Your task to perform on an android device: Clear the shopping cart on walmart.com. Search for amazon basics triple a on walmart.com, select the first entry, add it to the cart, then select checkout. Image 0: 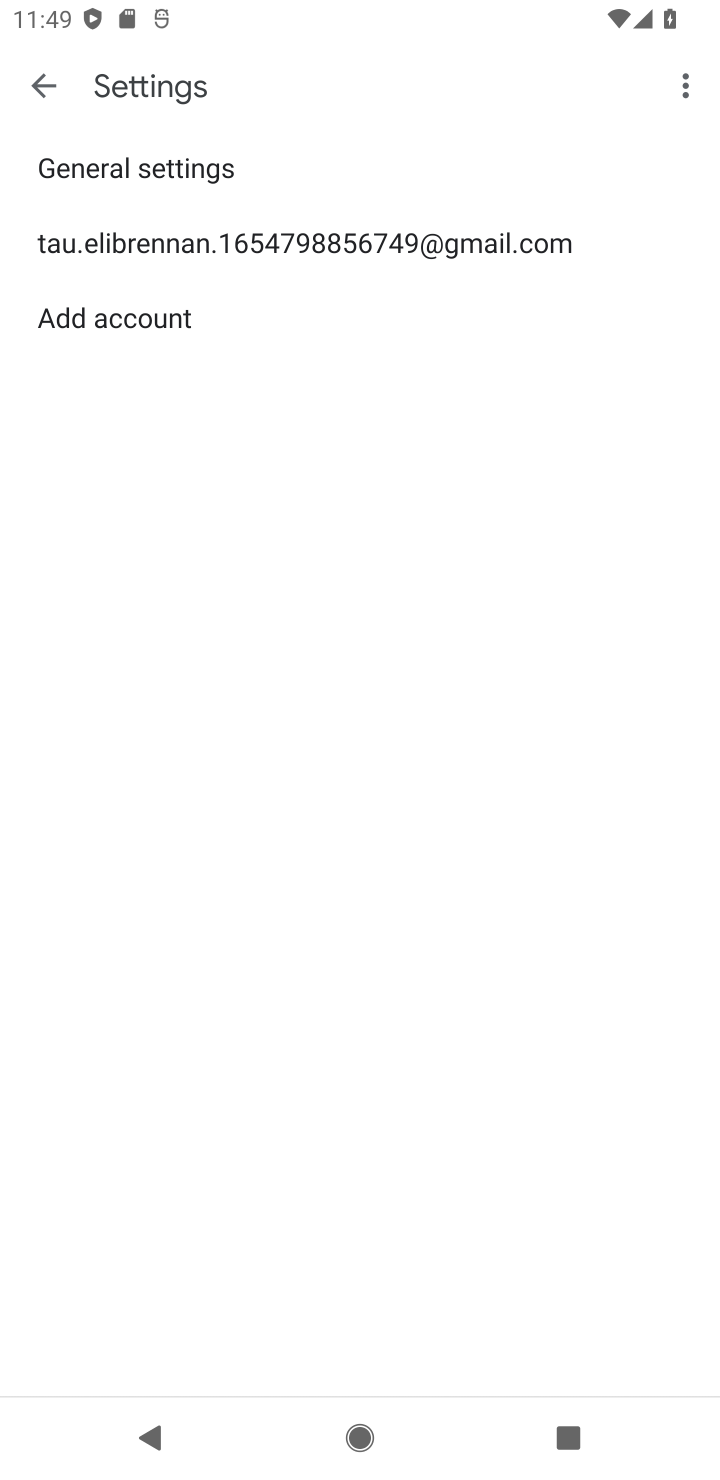
Step 0: press home button
Your task to perform on an android device: Clear the shopping cart on walmart.com. Search for amazon basics triple a on walmart.com, select the first entry, add it to the cart, then select checkout. Image 1: 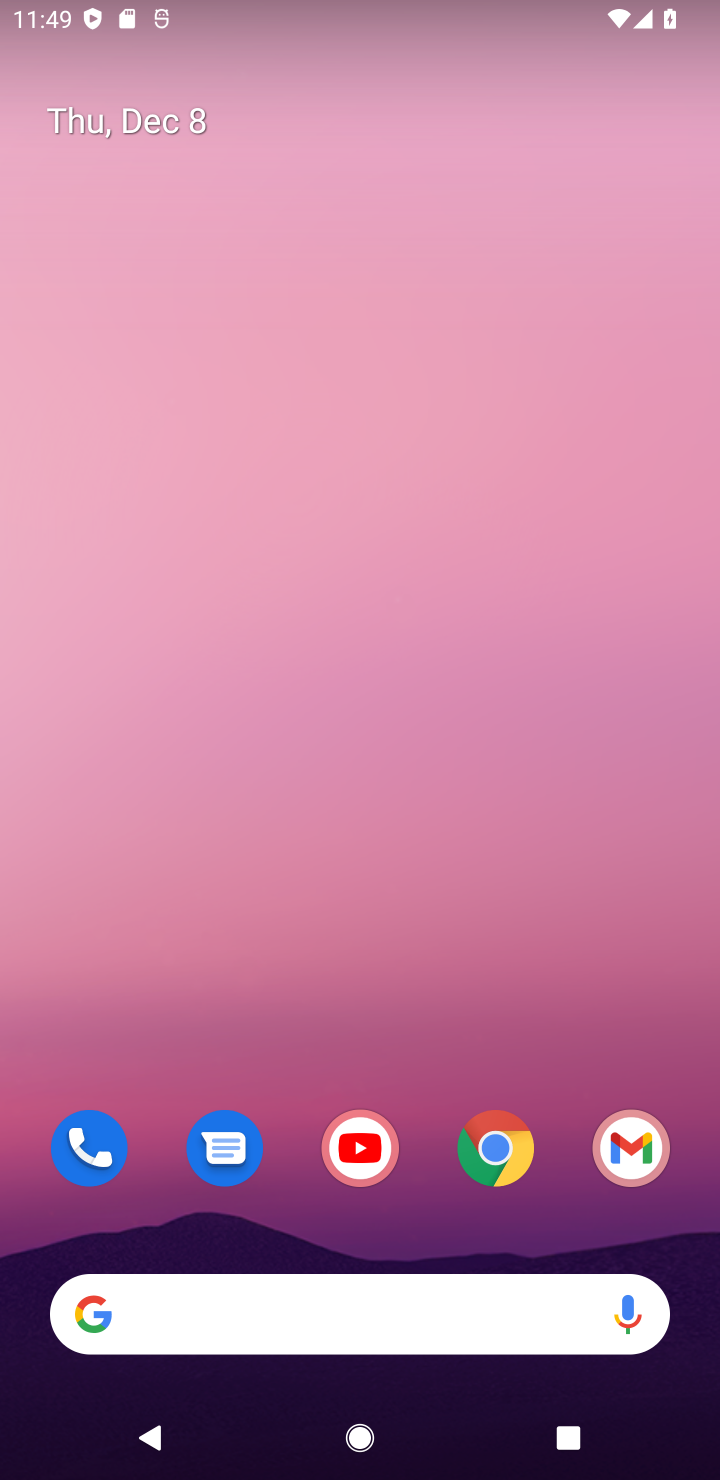
Step 1: click (366, 1295)
Your task to perform on an android device: Clear the shopping cart on walmart.com. Search for amazon basics triple a on walmart.com, select the first entry, add it to the cart, then select checkout. Image 2: 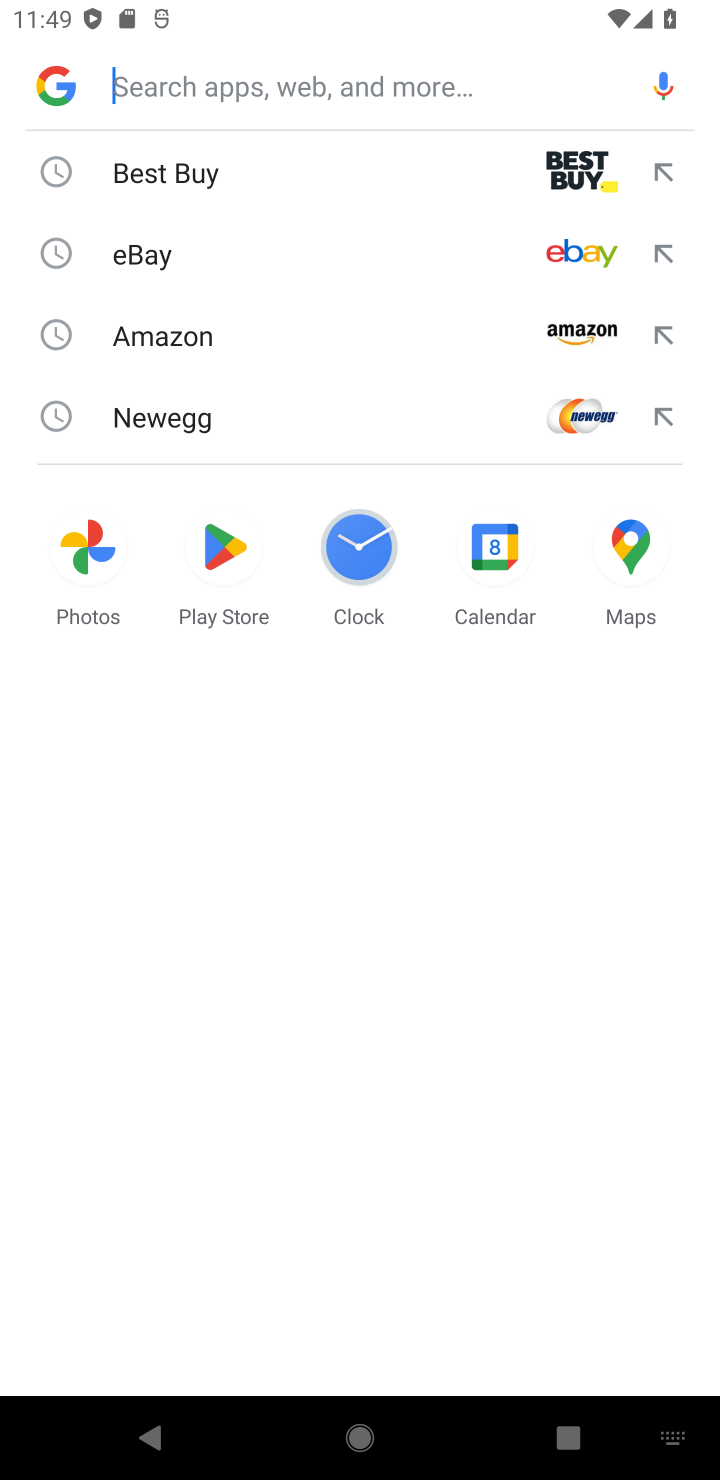
Step 2: type "walmart"
Your task to perform on an android device: Clear the shopping cart on walmart.com. Search for amazon basics triple a on walmart.com, select the first entry, add it to the cart, then select checkout. Image 3: 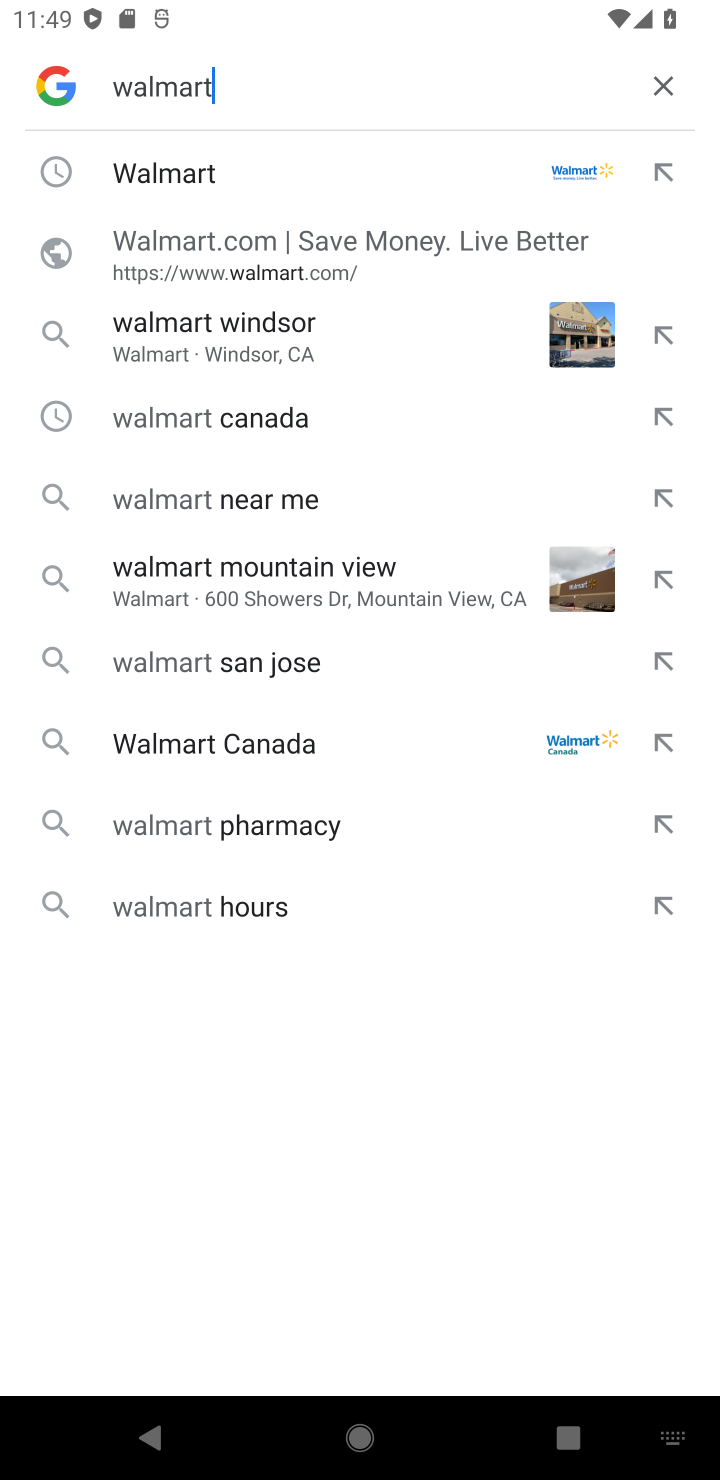
Step 3: click (193, 183)
Your task to perform on an android device: Clear the shopping cart on walmart.com. Search for amazon basics triple a on walmart.com, select the first entry, add it to the cart, then select checkout. Image 4: 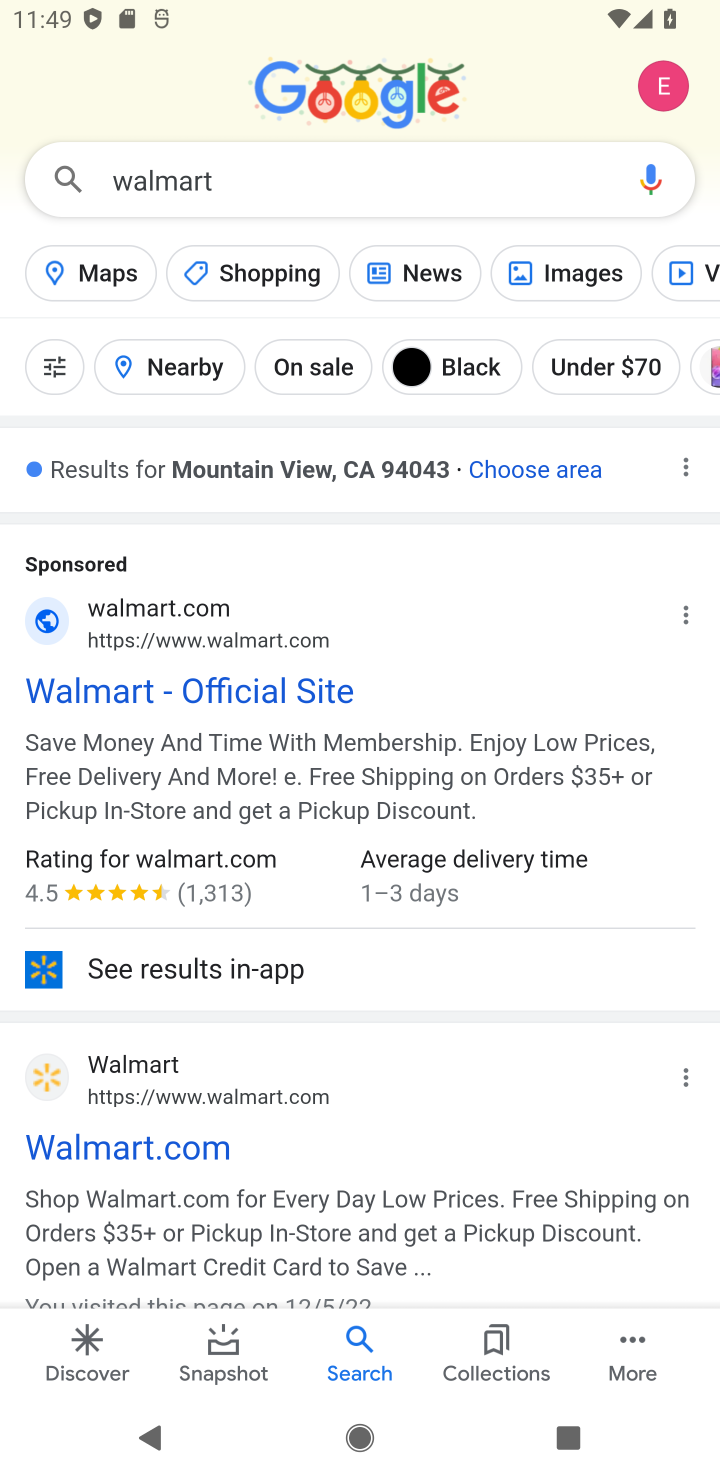
Step 4: click (73, 686)
Your task to perform on an android device: Clear the shopping cart on walmart.com. Search for amazon basics triple a on walmart.com, select the first entry, add it to the cart, then select checkout. Image 5: 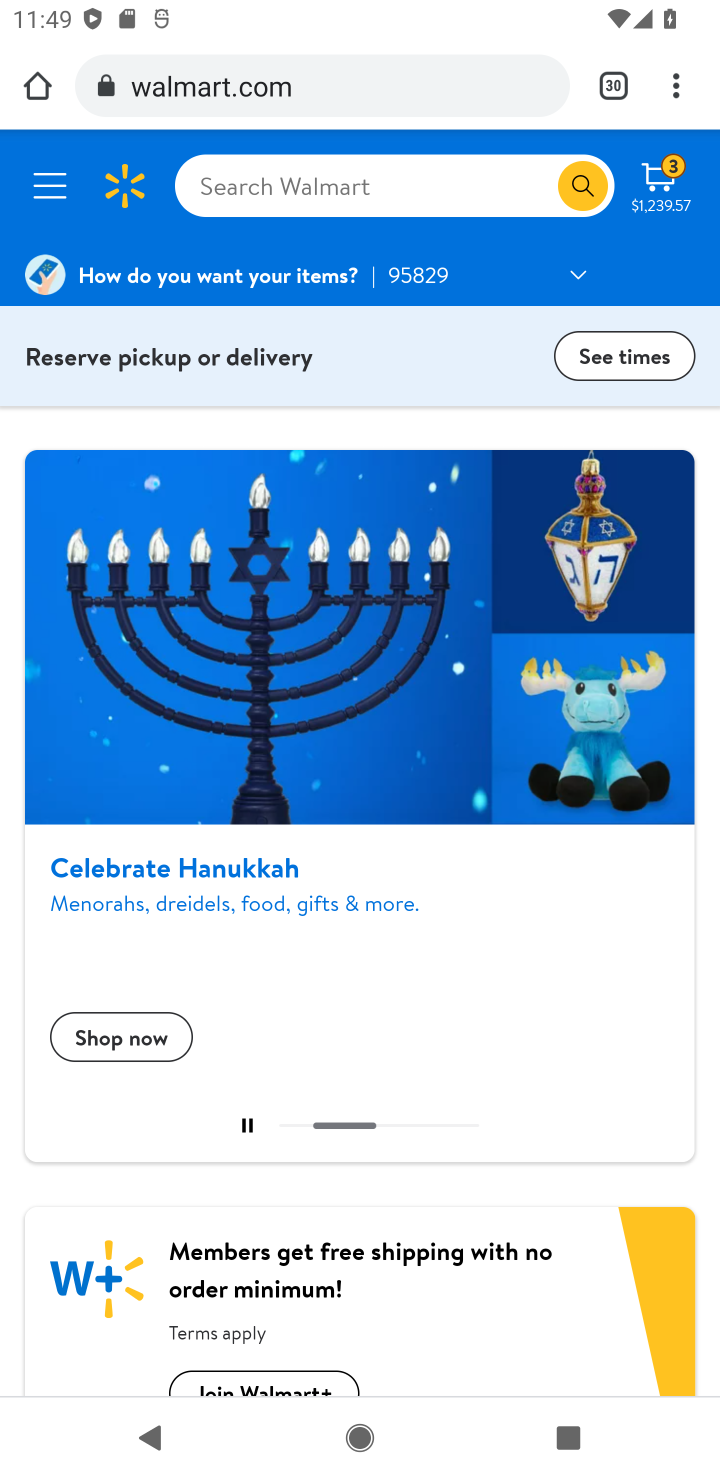
Step 5: click (660, 175)
Your task to perform on an android device: Clear the shopping cart on walmart.com. Search for amazon basics triple a on walmart.com, select the first entry, add it to the cart, then select checkout. Image 6: 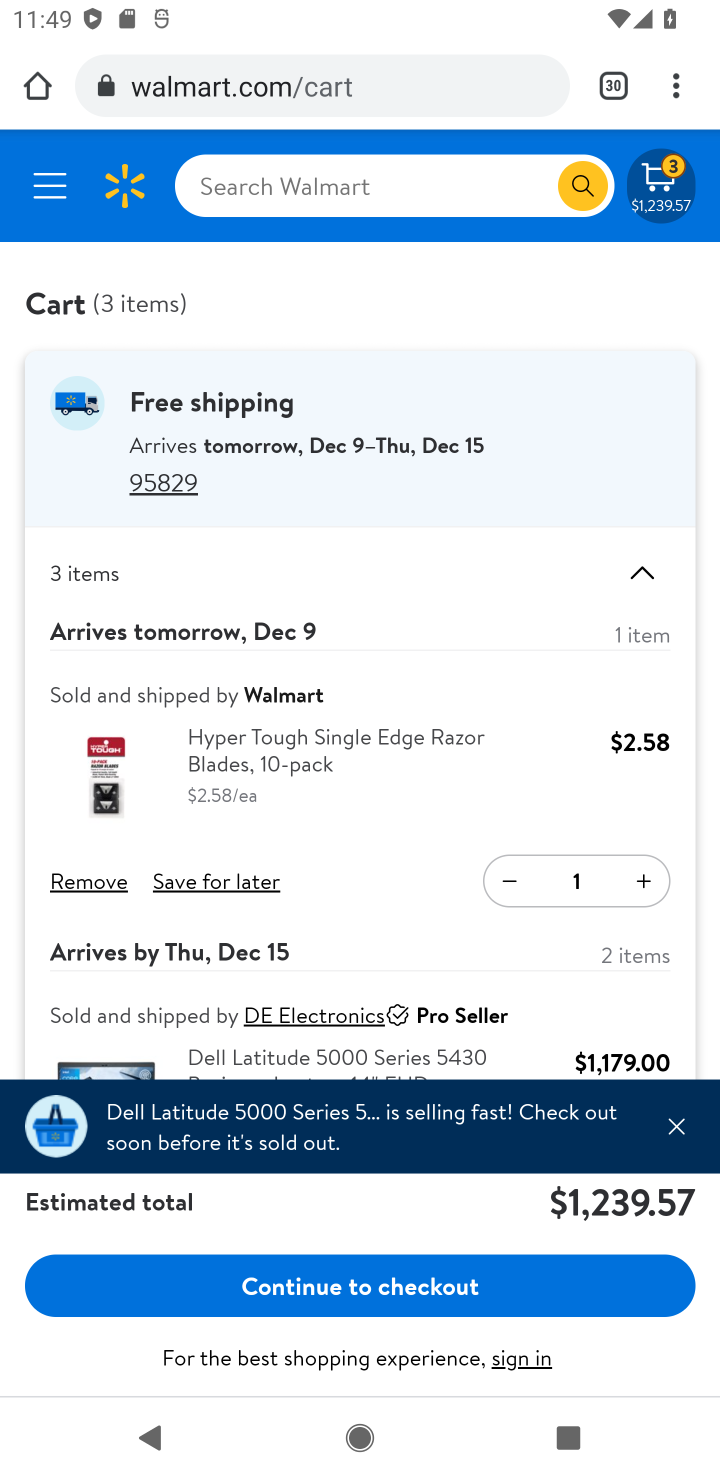
Step 6: click (86, 886)
Your task to perform on an android device: Clear the shopping cart on walmart.com. Search for amazon basics triple a on walmart.com, select the first entry, add it to the cart, then select checkout. Image 7: 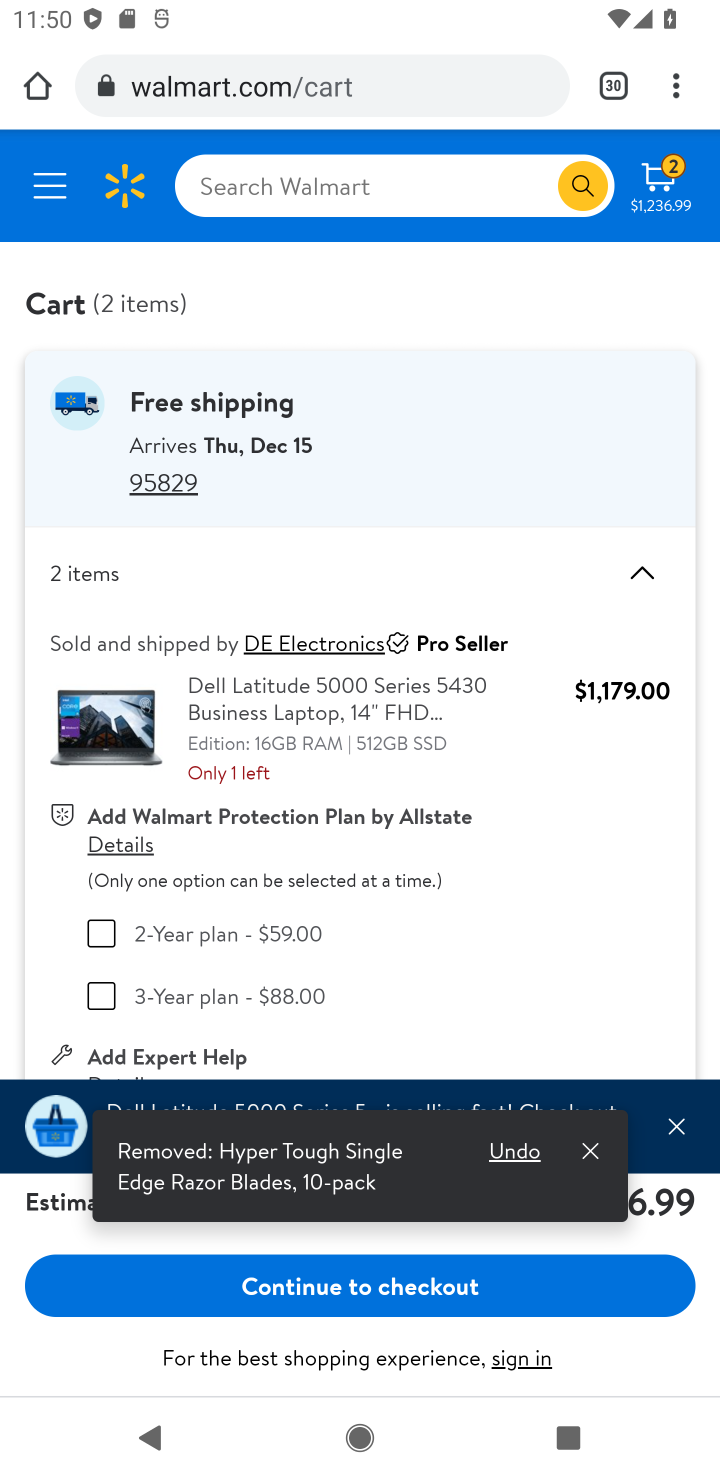
Step 7: drag from (543, 884) to (489, 567)
Your task to perform on an android device: Clear the shopping cart on walmart.com. Search for amazon basics triple a on walmart.com, select the first entry, add it to the cart, then select checkout. Image 8: 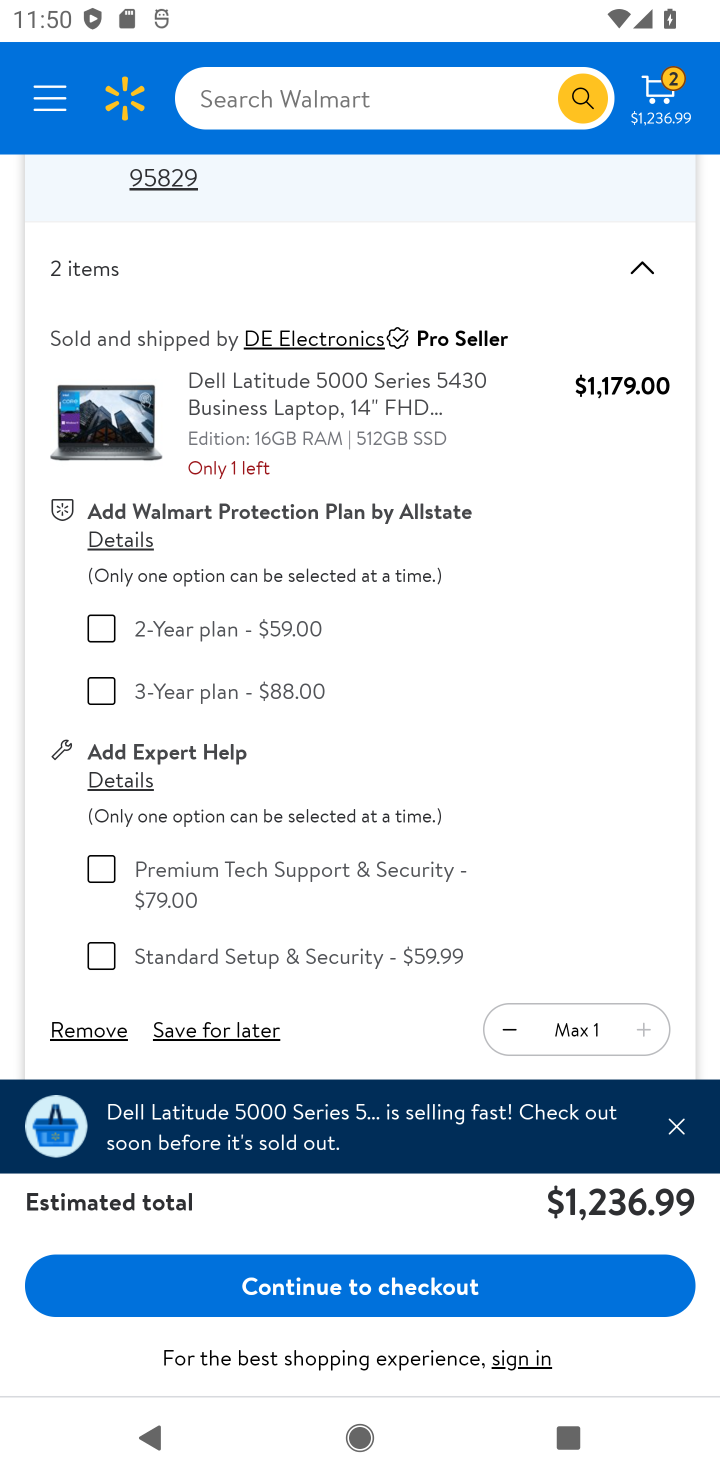
Step 8: click (81, 1028)
Your task to perform on an android device: Clear the shopping cart on walmart.com. Search for amazon basics triple a on walmart.com, select the first entry, add it to the cart, then select checkout. Image 9: 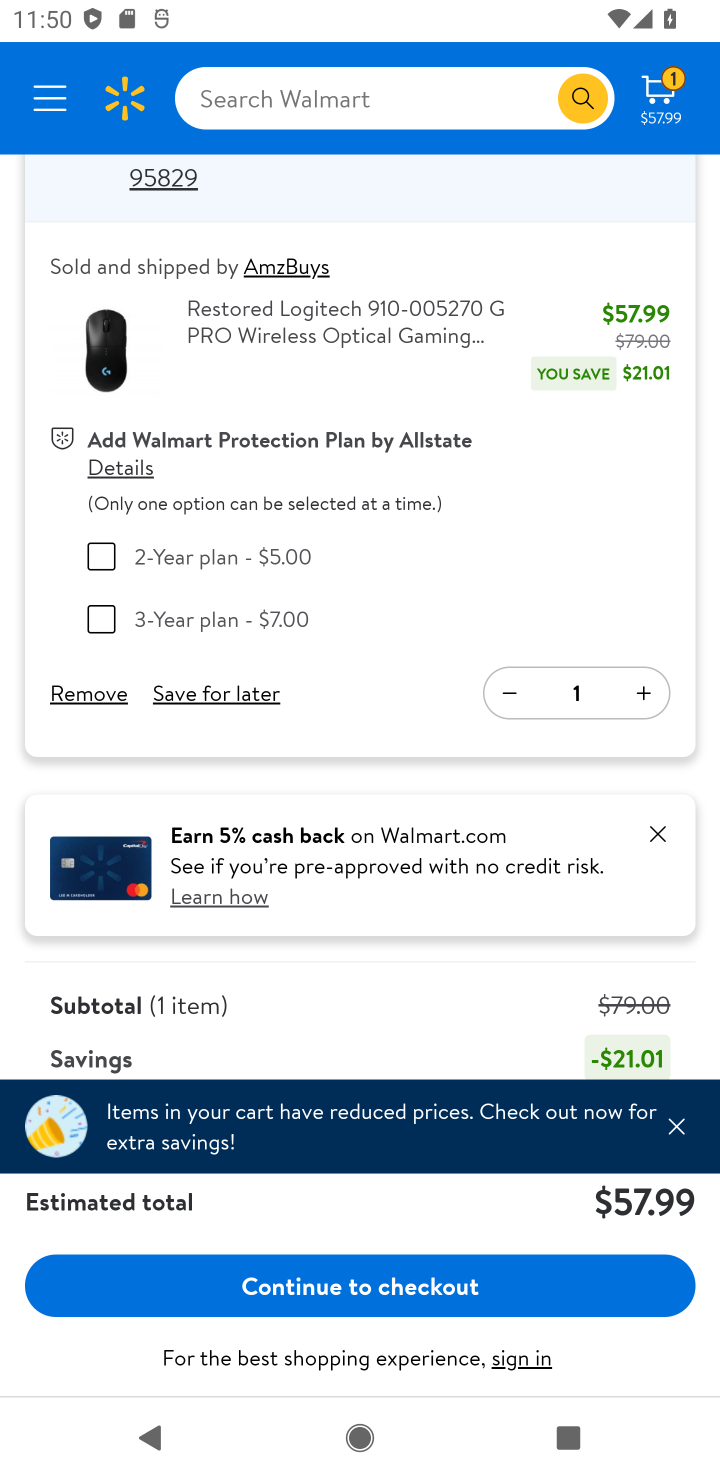
Step 9: click (87, 694)
Your task to perform on an android device: Clear the shopping cart on walmart.com. Search for amazon basics triple a on walmart.com, select the first entry, add it to the cart, then select checkout. Image 10: 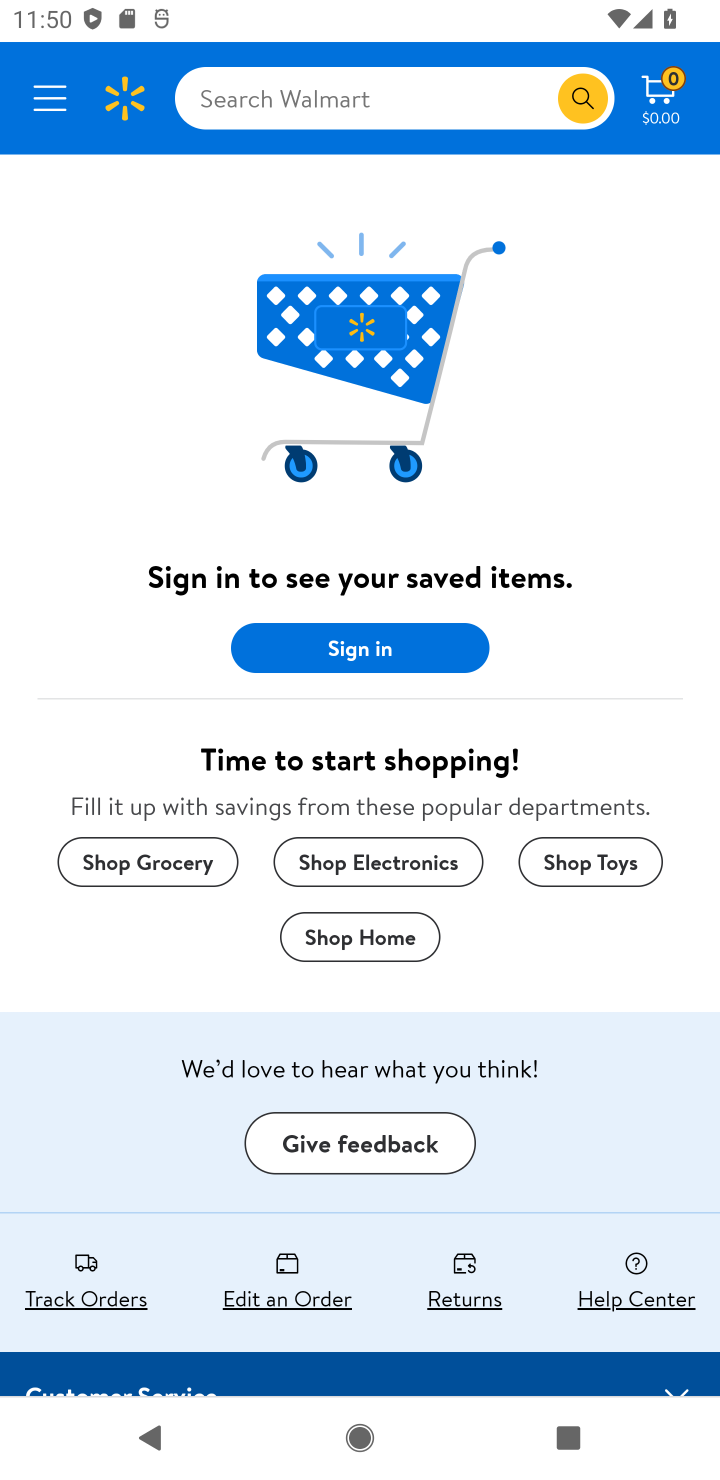
Step 10: click (328, 83)
Your task to perform on an android device: Clear the shopping cart on walmart.com. Search for amazon basics triple a on walmart.com, select the first entry, add it to the cart, then select checkout. Image 11: 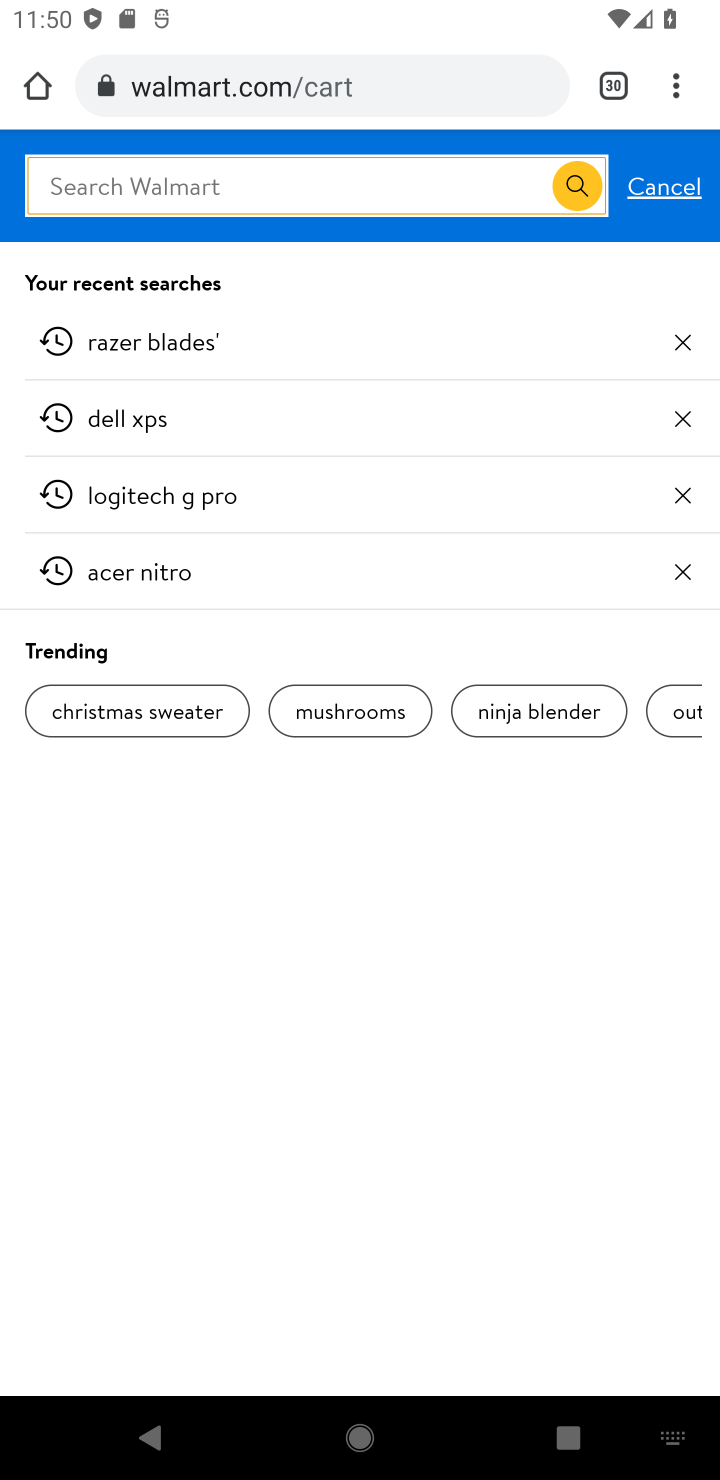
Step 11: type "amazon basics triple a"
Your task to perform on an android device: Clear the shopping cart on walmart.com. Search for amazon basics triple a on walmart.com, select the first entry, add it to the cart, then select checkout. Image 12: 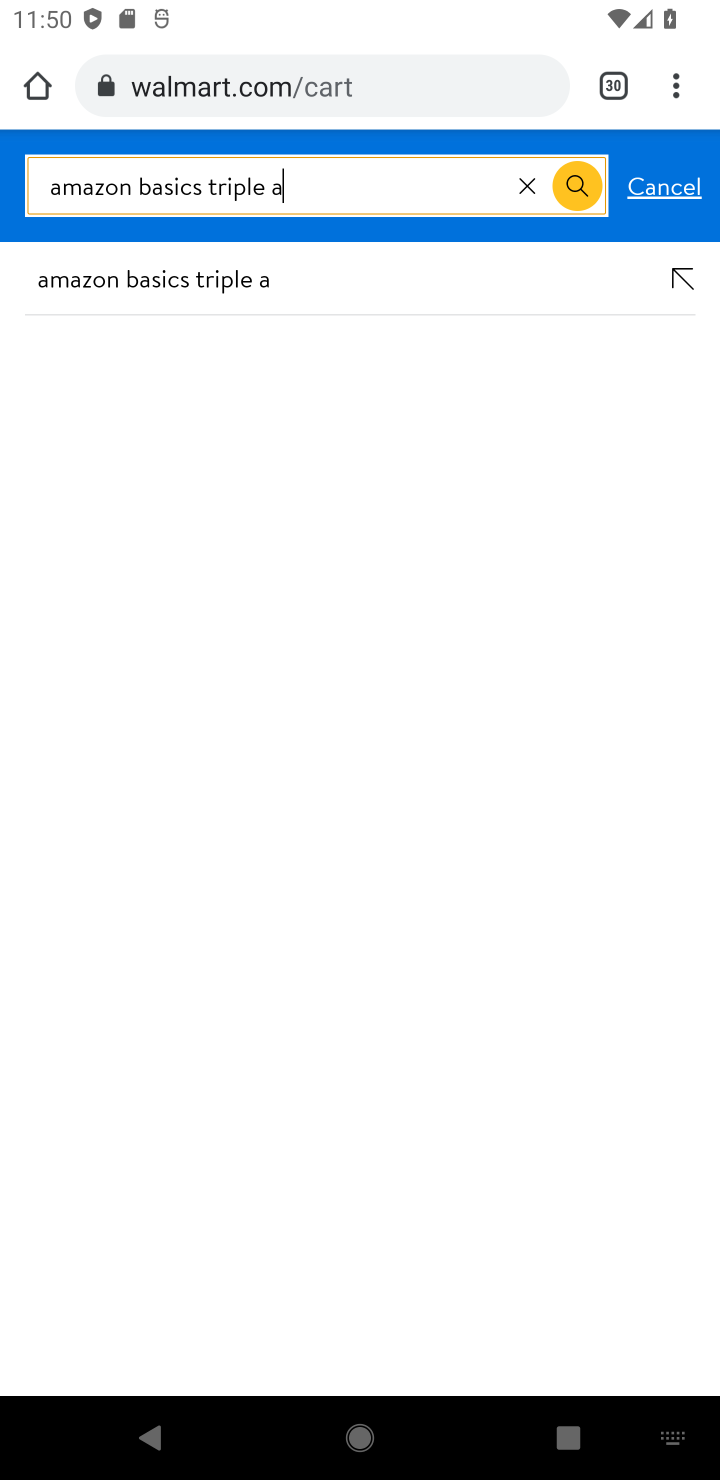
Step 12: click (251, 269)
Your task to perform on an android device: Clear the shopping cart on walmart.com. Search for amazon basics triple a on walmart.com, select the first entry, add it to the cart, then select checkout. Image 13: 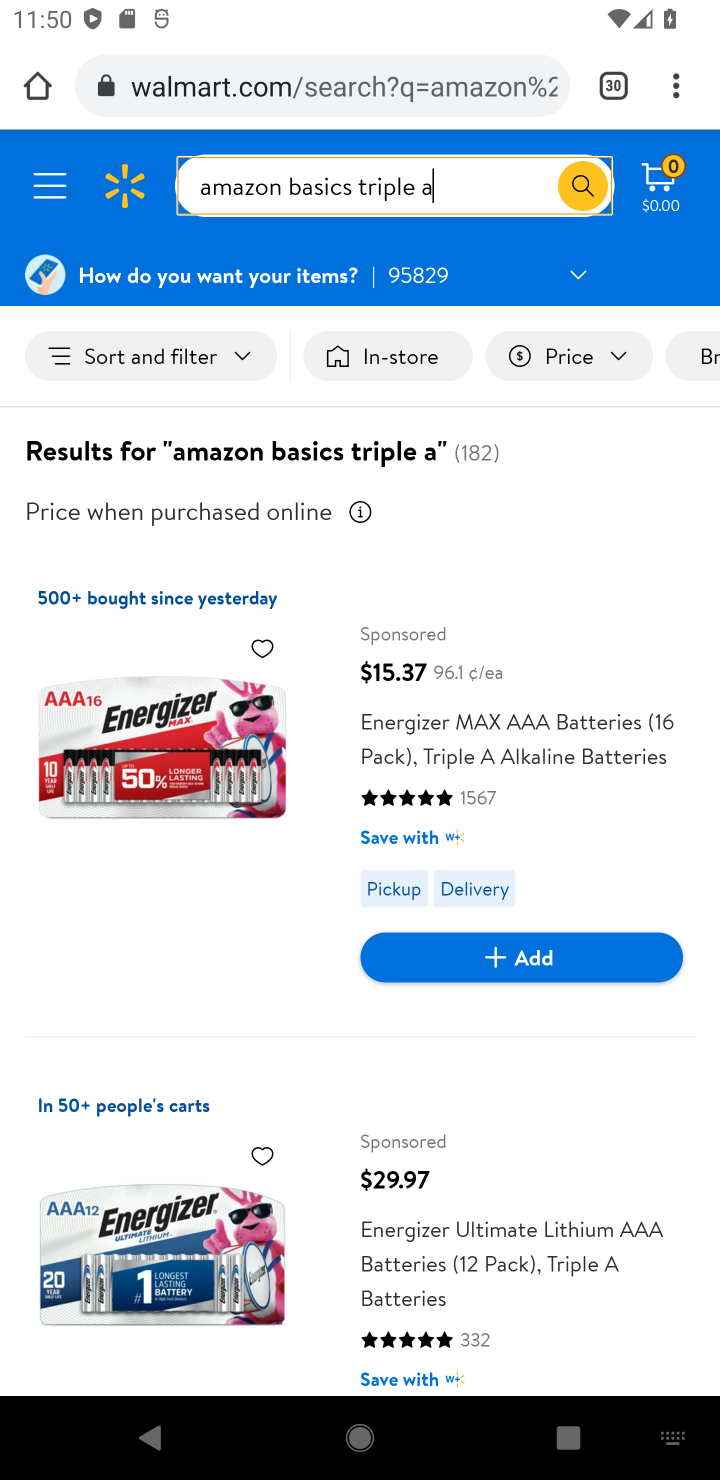
Step 13: click (513, 951)
Your task to perform on an android device: Clear the shopping cart on walmart.com. Search for amazon basics triple a on walmart.com, select the first entry, add it to the cart, then select checkout. Image 14: 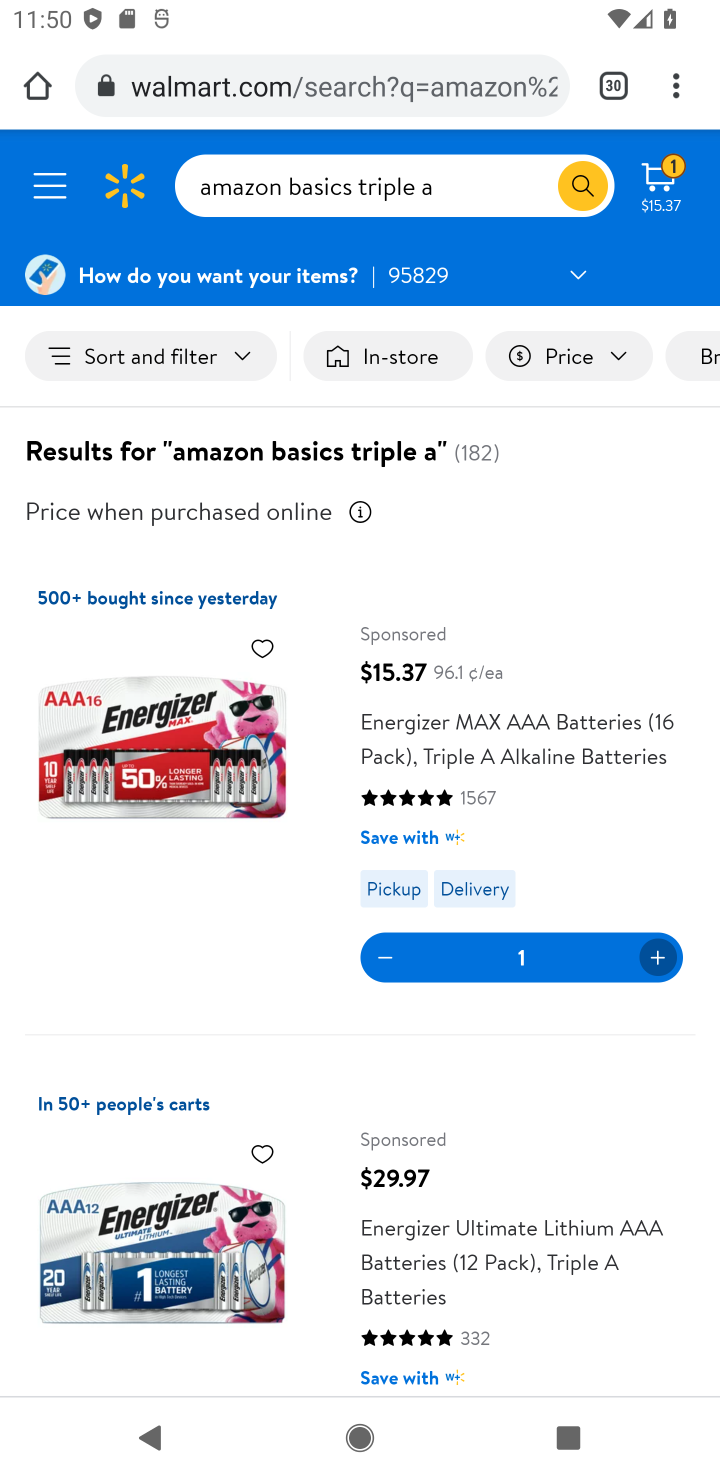
Step 14: click (658, 176)
Your task to perform on an android device: Clear the shopping cart on walmart.com. Search for amazon basics triple a on walmart.com, select the first entry, add it to the cart, then select checkout. Image 15: 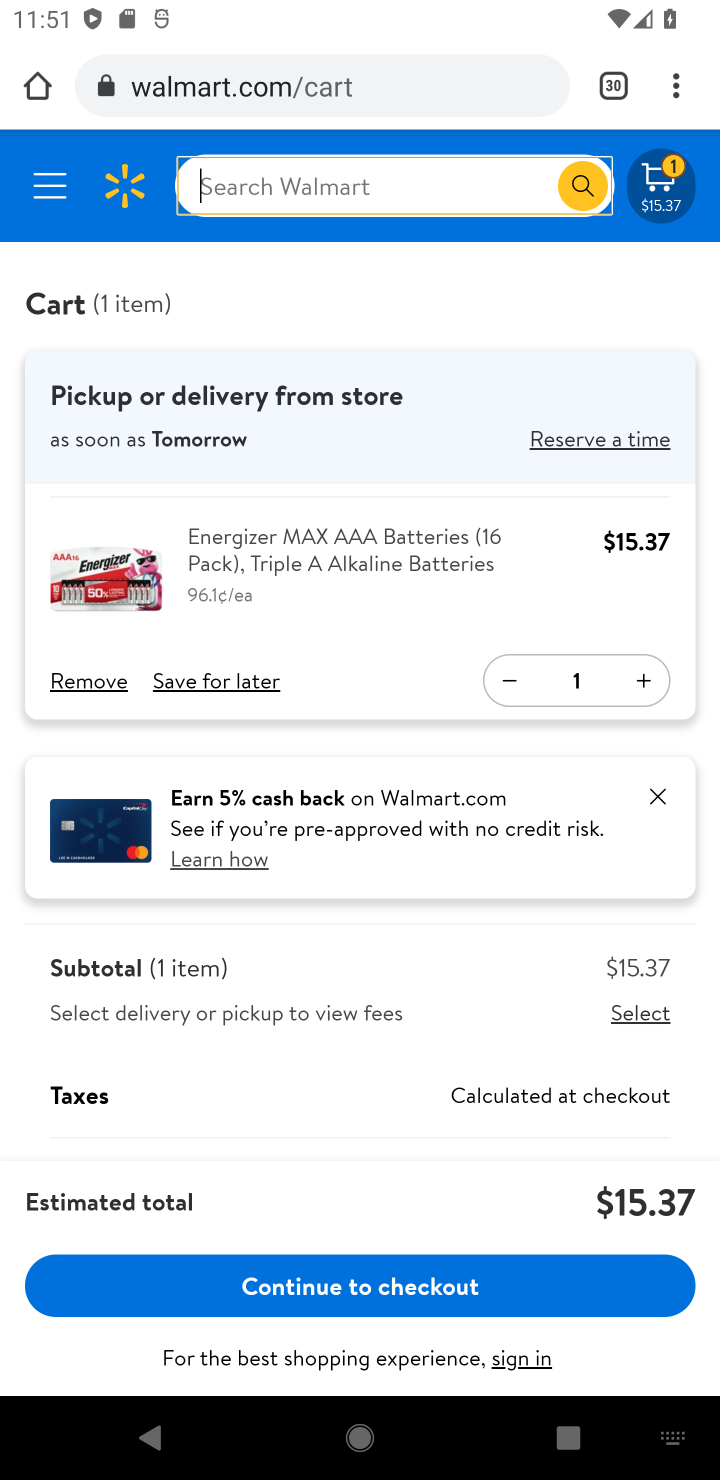
Step 15: click (353, 1284)
Your task to perform on an android device: Clear the shopping cart on walmart.com. Search for amazon basics triple a on walmart.com, select the first entry, add it to the cart, then select checkout. Image 16: 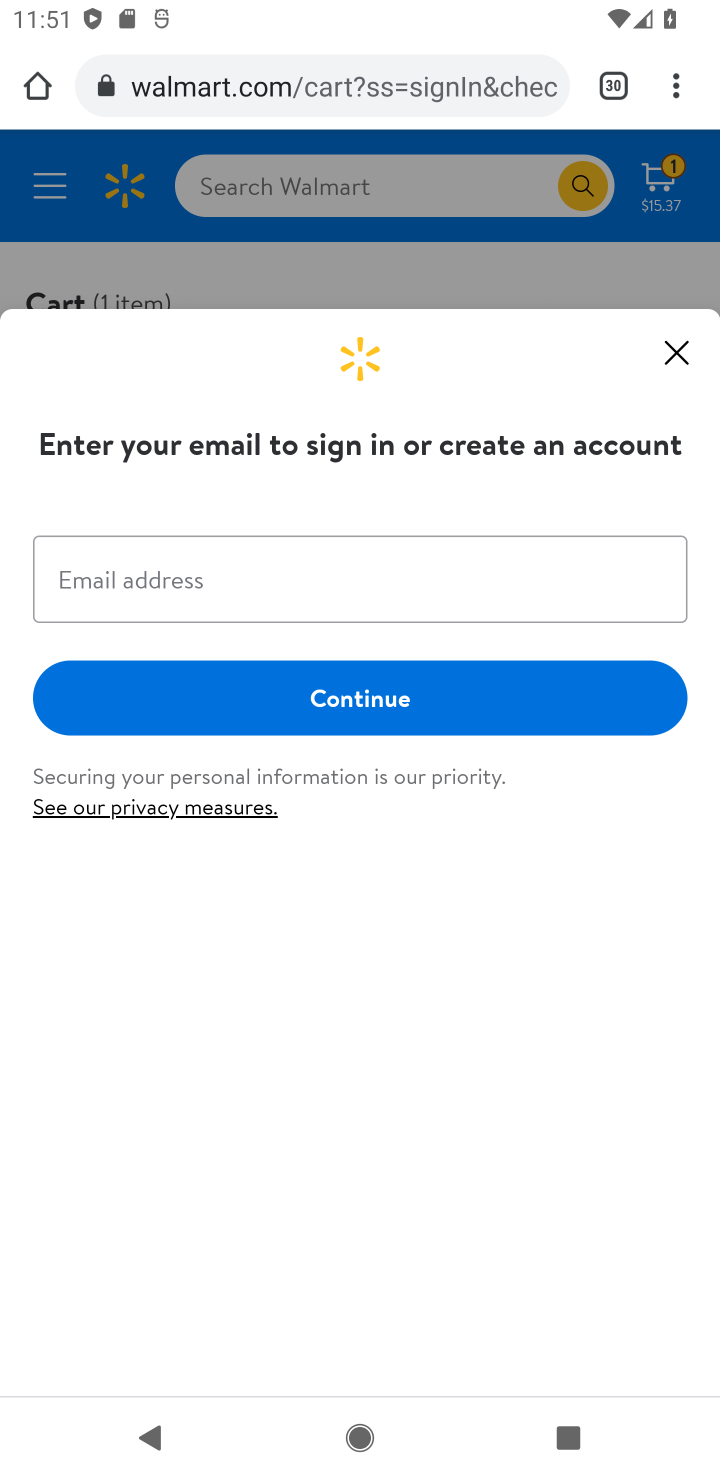
Step 16: task complete